Your task to perform on an android device: set the stopwatch Image 0: 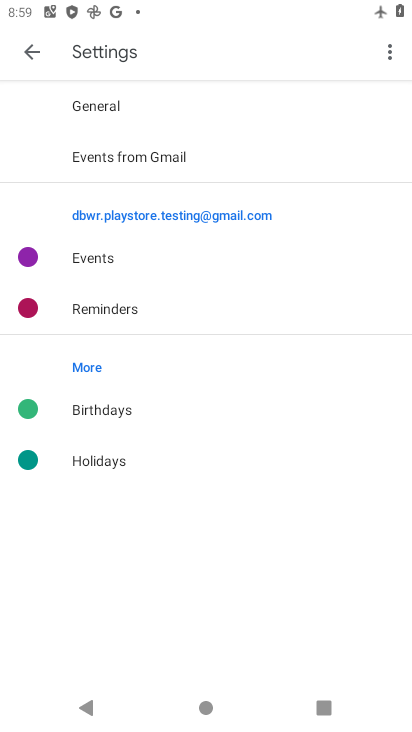
Step 0: press home button
Your task to perform on an android device: set the stopwatch Image 1: 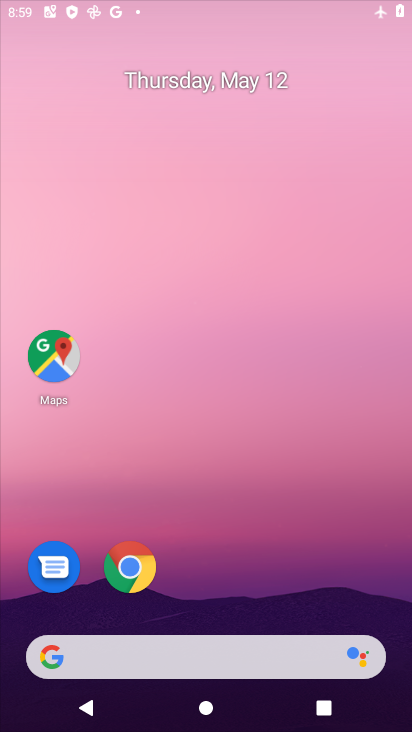
Step 1: drag from (216, 587) to (219, 156)
Your task to perform on an android device: set the stopwatch Image 2: 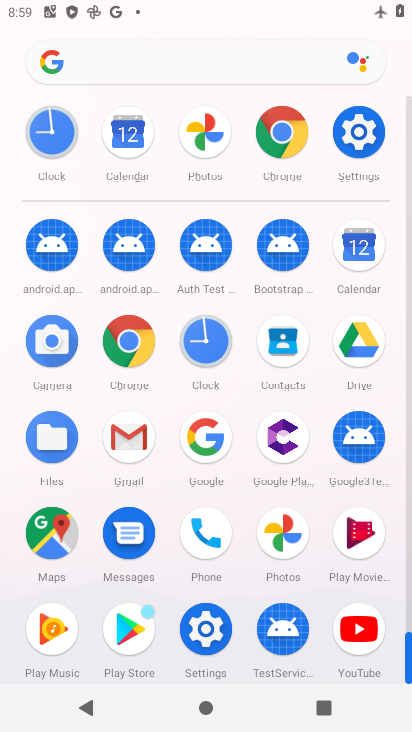
Step 2: click (211, 365)
Your task to perform on an android device: set the stopwatch Image 3: 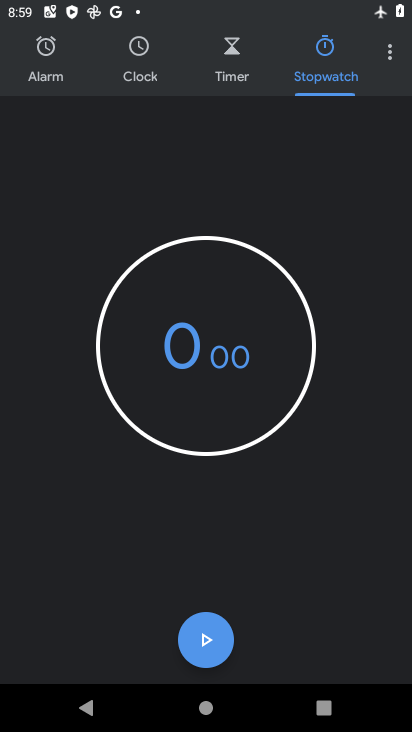
Step 3: click (215, 635)
Your task to perform on an android device: set the stopwatch Image 4: 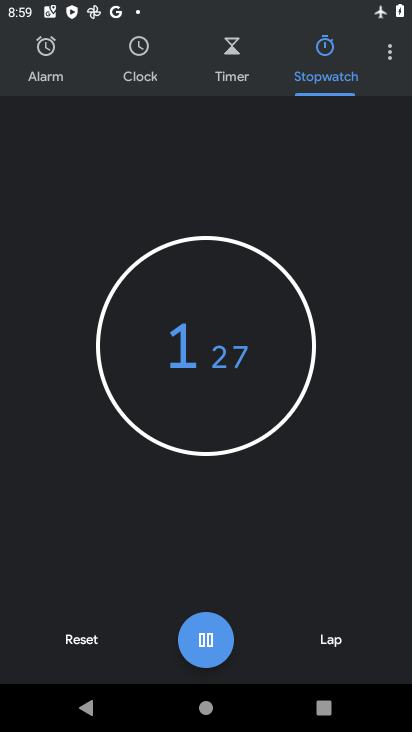
Step 4: task complete